Your task to perform on an android device: Open the calendar app, open the side menu, and click the "Day" option Image 0: 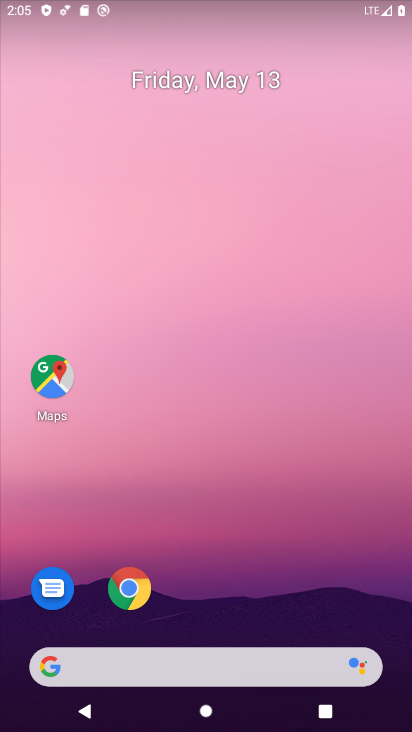
Step 0: drag from (405, 645) to (313, 122)
Your task to perform on an android device: Open the calendar app, open the side menu, and click the "Day" option Image 1: 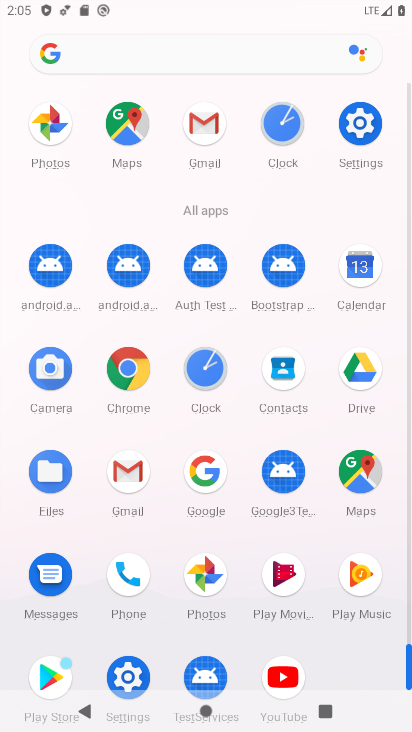
Step 1: click (366, 265)
Your task to perform on an android device: Open the calendar app, open the side menu, and click the "Day" option Image 2: 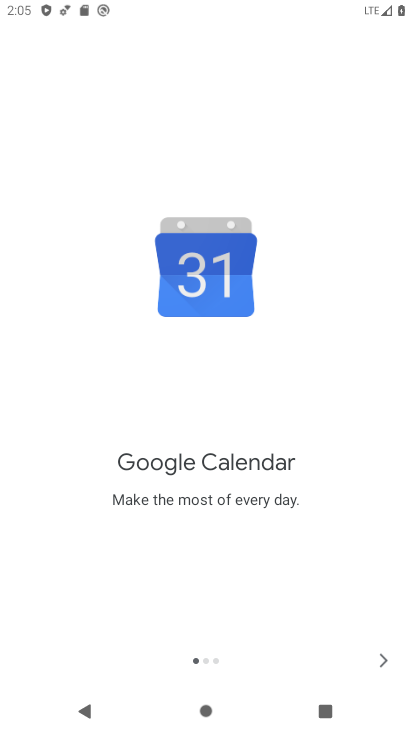
Step 2: click (381, 658)
Your task to perform on an android device: Open the calendar app, open the side menu, and click the "Day" option Image 3: 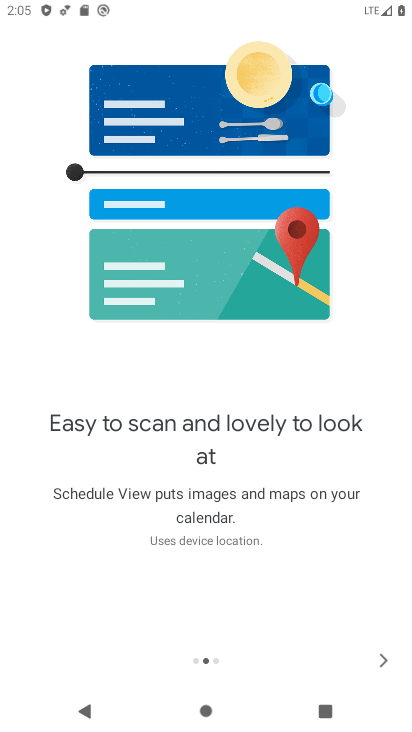
Step 3: click (381, 658)
Your task to perform on an android device: Open the calendar app, open the side menu, and click the "Day" option Image 4: 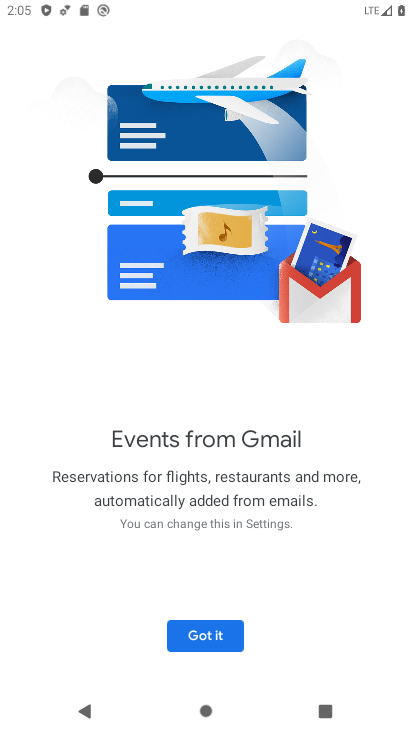
Step 4: click (200, 632)
Your task to perform on an android device: Open the calendar app, open the side menu, and click the "Day" option Image 5: 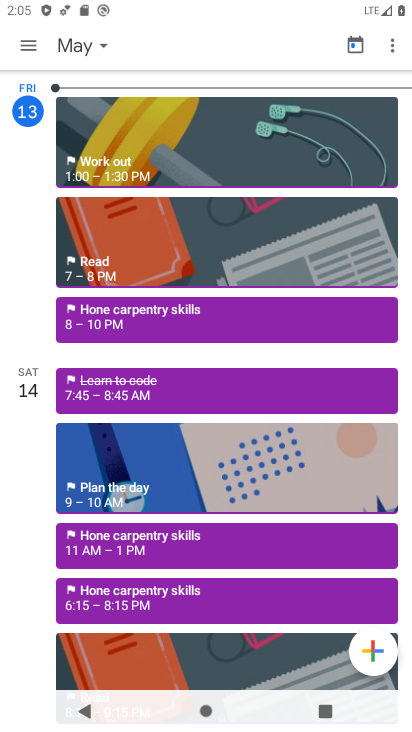
Step 5: click (32, 46)
Your task to perform on an android device: Open the calendar app, open the side menu, and click the "Day" option Image 6: 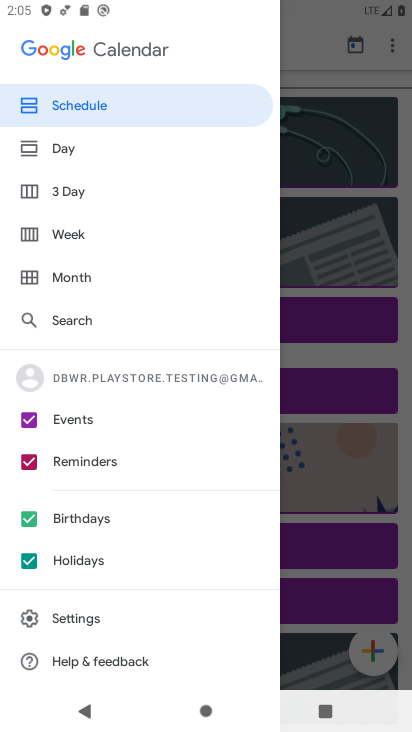
Step 6: click (65, 150)
Your task to perform on an android device: Open the calendar app, open the side menu, and click the "Day" option Image 7: 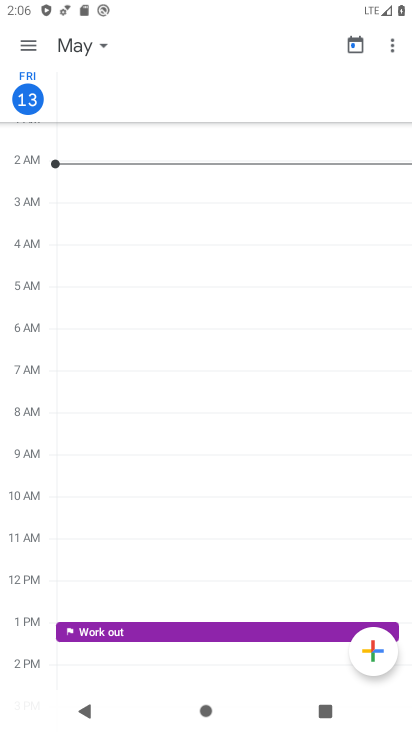
Step 7: task complete